Your task to perform on an android device: What's the weather? Image 0: 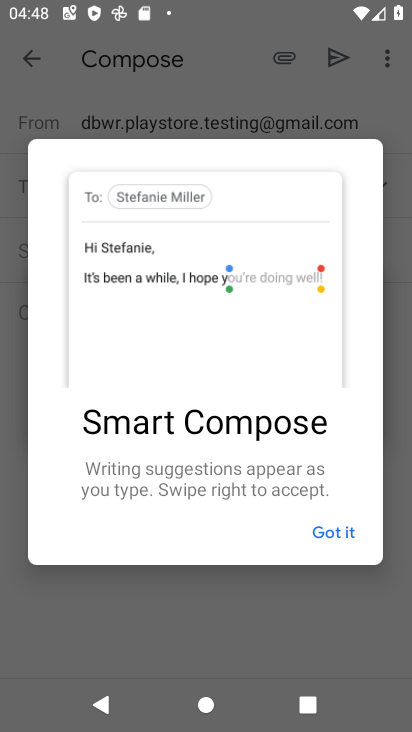
Step 0: task complete